Your task to perform on an android device: change the clock style Image 0: 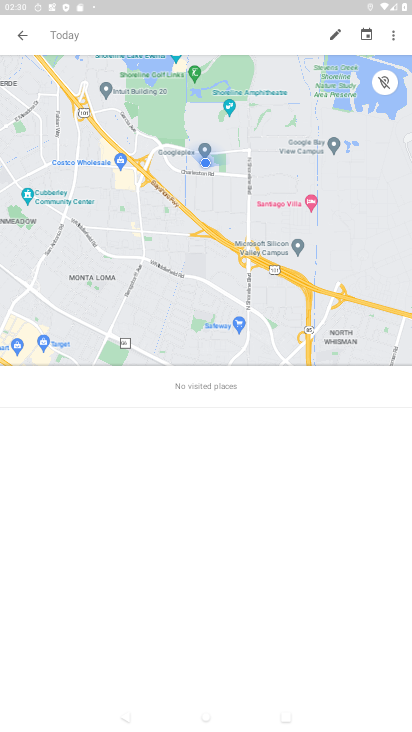
Step 0: press home button
Your task to perform on an android device: change the clock style Image 1: 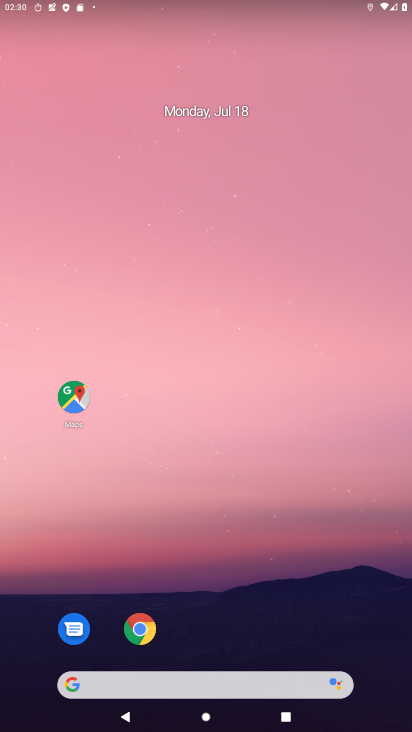
Step 1: drag from (242, 644) to (278, 0)
Your task to perform on an android device: change the clock style Image 2: 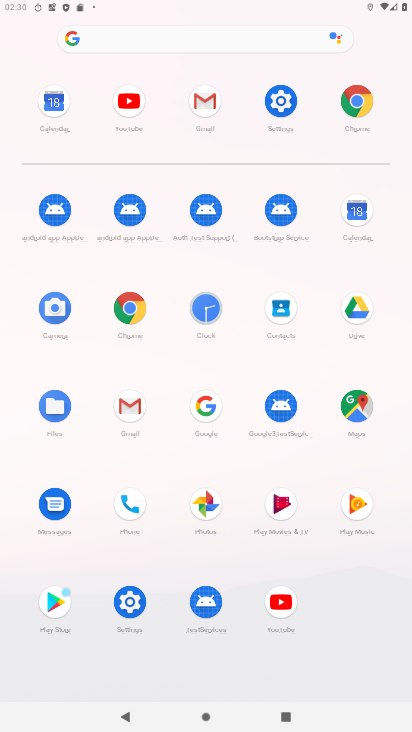
Step 2: click (194, 310)
Your task to perform on an android device: change the clock style Image 3: 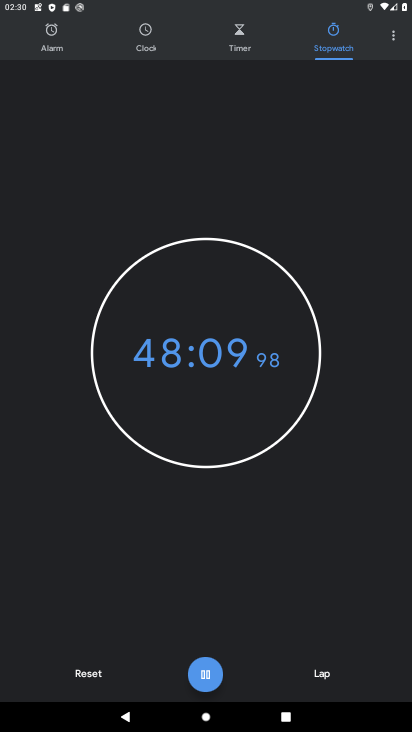
Step 3: click (394, 40)
Your task to perform on an android device: change the clock style Image 4: 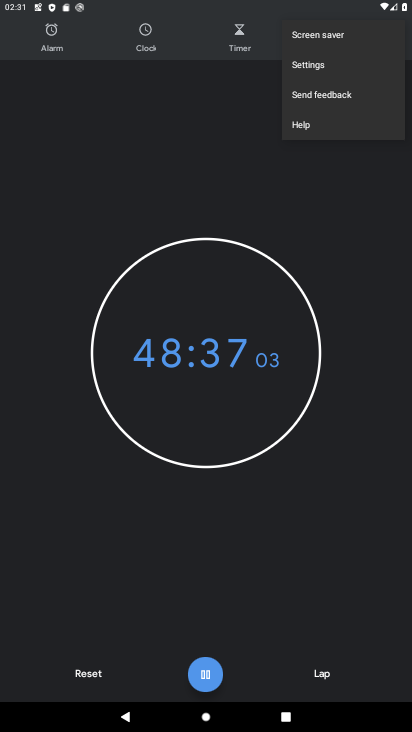
Step 4: click (328, 60)
Your task to perform on an android device: change the clock style Image 5: 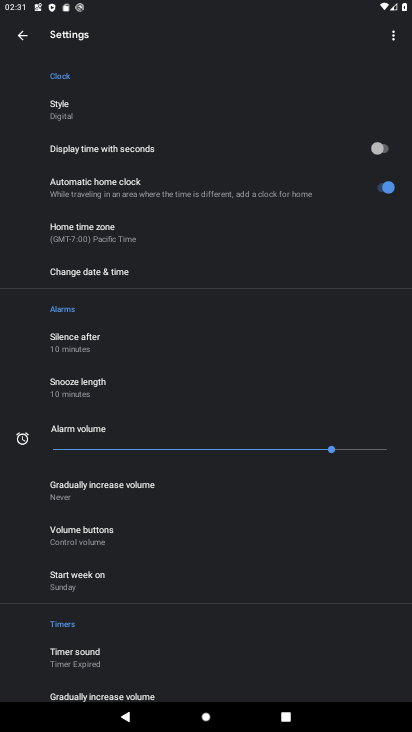
Step 5: click (83, 111)
Your task to perform on an android device: change the clock style Image 6: 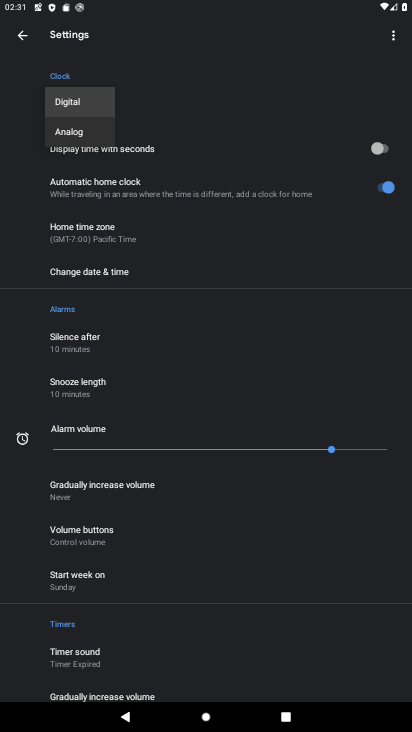
Step 6: click (83, 133)
Your task to perform on an android device: change the clock style Image 7: 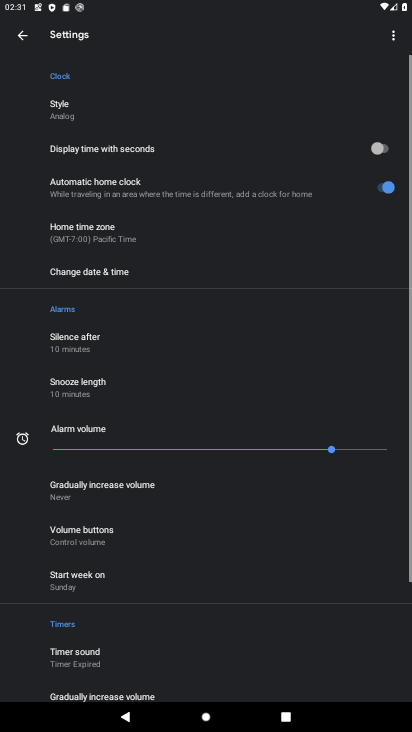
Step 7: task complete